Your task to perform on an android device: Open the calendar app, open the side menu, and click the "Day" option Image 0: 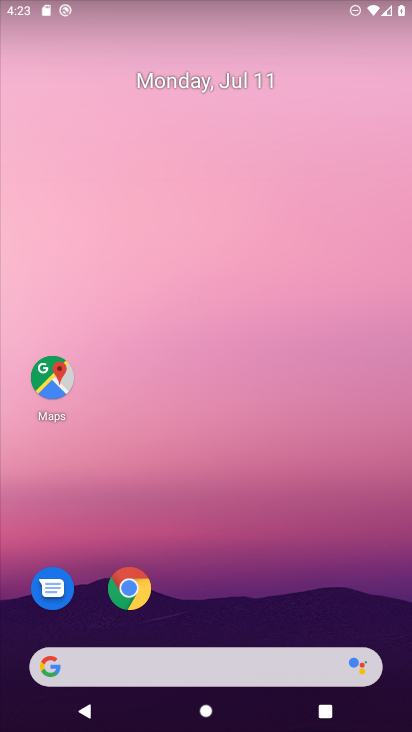
Step 0: drag from (157, 533) to (184, 51)
Your task to perform on an android device: Open the calendar app, open the side menu, and click the "Day" option Image 1: 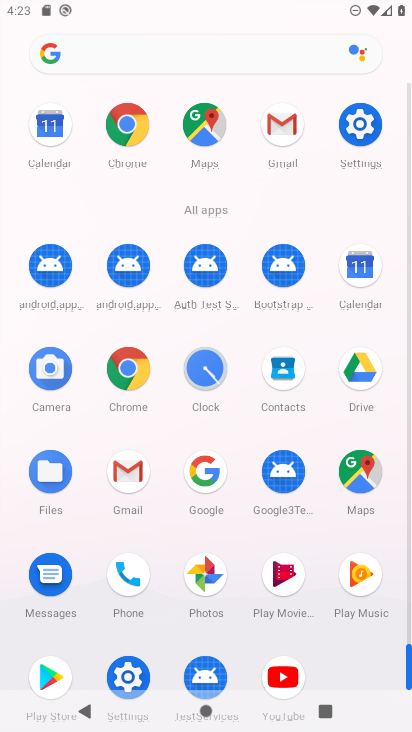
Step 1: click (50, 120)
Your task to perform on an android device: Open the calendar app, open the side menu, and click the "Day" option Image 2: 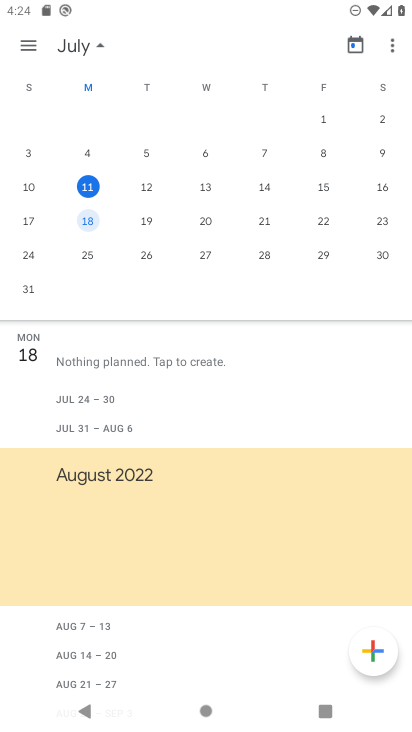
Step 2: click (29, 33)
Your task to perform on an android device: Open the calendar app, open the side menu, and click the "Day" option Image 3: 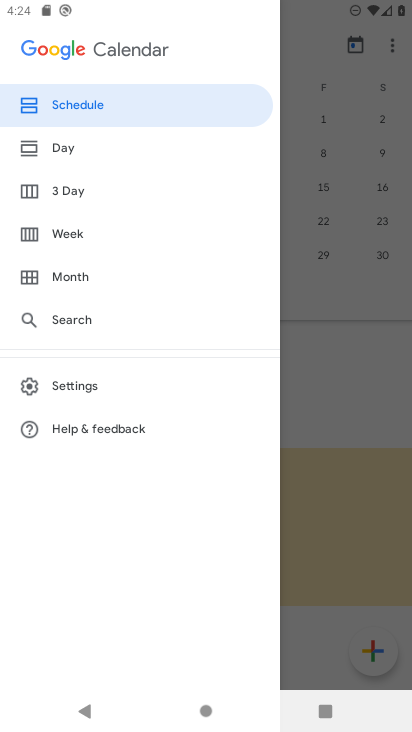
Step 3: click (77, 147)
Your task to perform on an android device: Open the calendar app, open the side menu, and click the "Day" option Image 4: 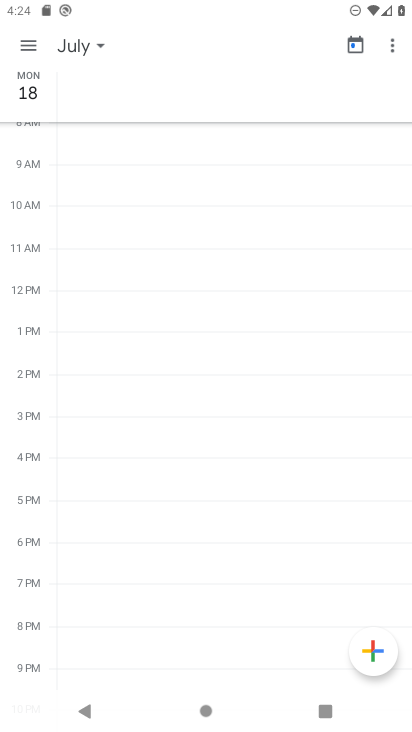
Step 4: task complete